Your task to perform on an android device: all mails in gmail Image 0: 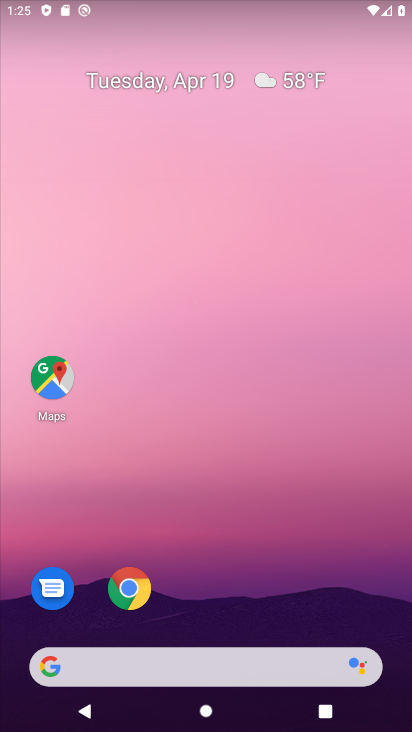
Step 0: drag from (350, 360) to (353, 65)
Your task to perform on an android device: all mails in gmail Image 1: 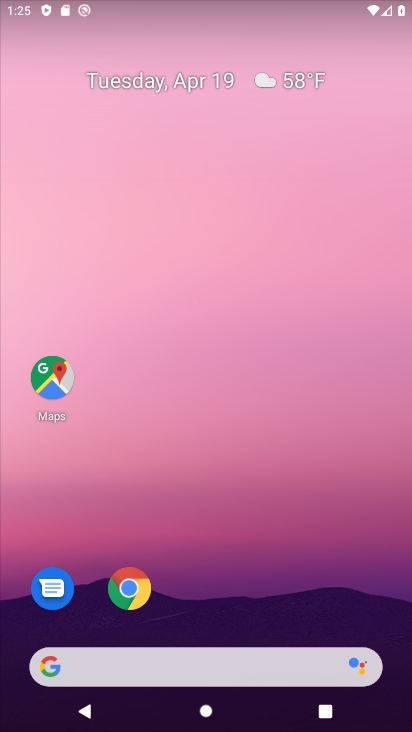
Step 1: drag from (231, 543) to (283, 36)
Your task to perform on an android device: all mails in gmail Image 2: 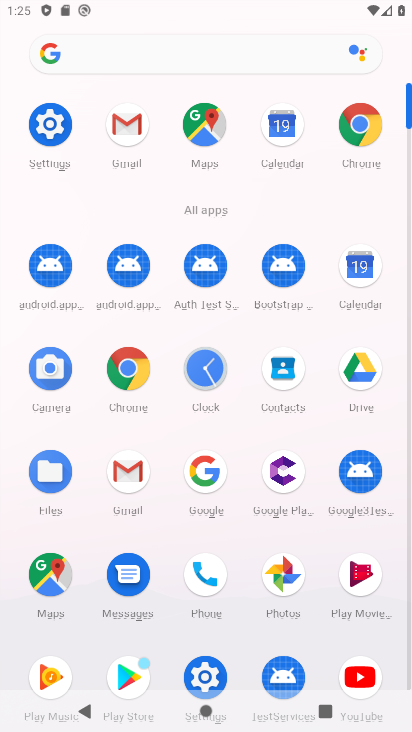
Step 2: click (131, 122)
Your task to perform on an android device: all mails in gmail Image 3: 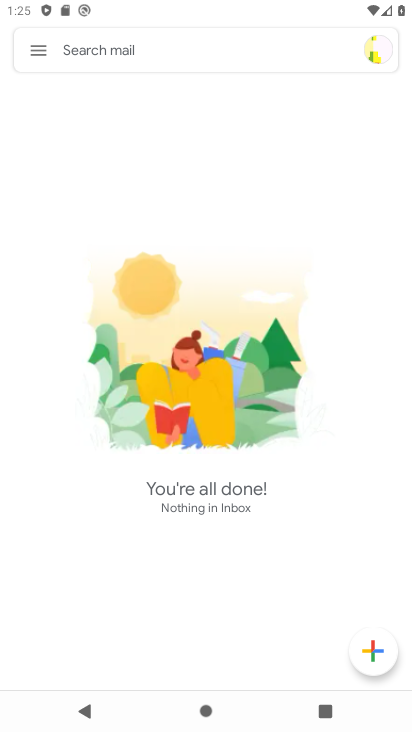
Step 3: click (38, 46)
Your task to perform on an android device: all mails in gmail Image 4: 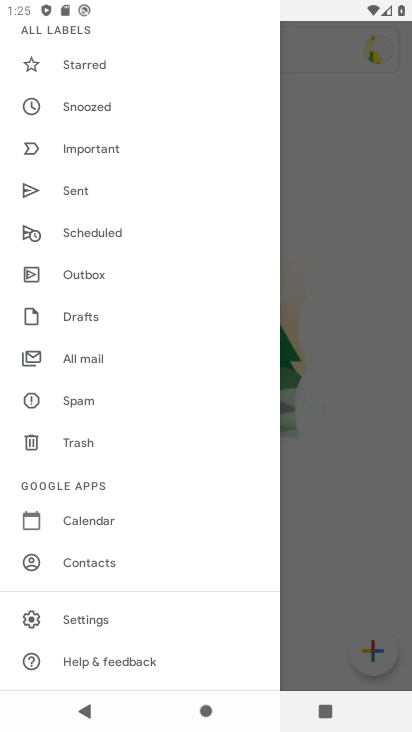
Step 4: click (97, 356)
Your task to perform on an android device: all mails in gmail Image 5: 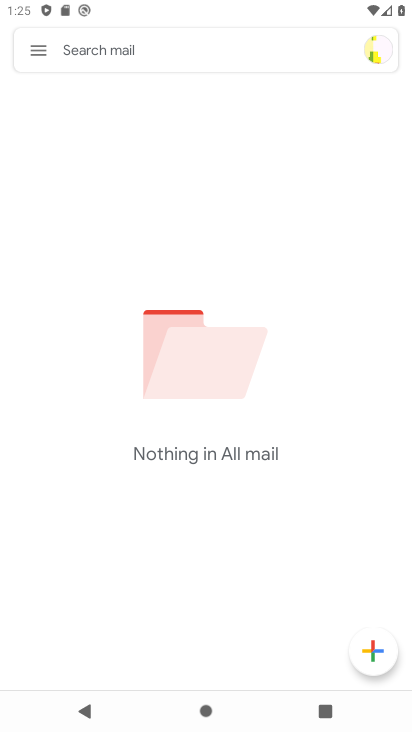
Step 5: task complete